Your task to perform on an android device: allow cookies in the chrome app Image 0: 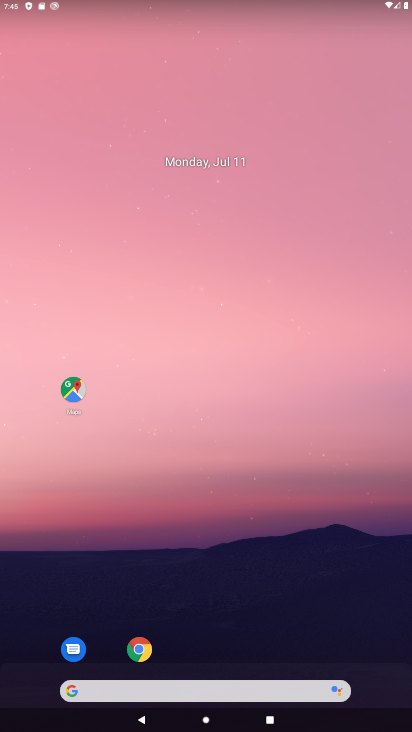
Step 0: click (139, 648)
Your task to perform on an android device: allow cookies in the chrome app Image 1: 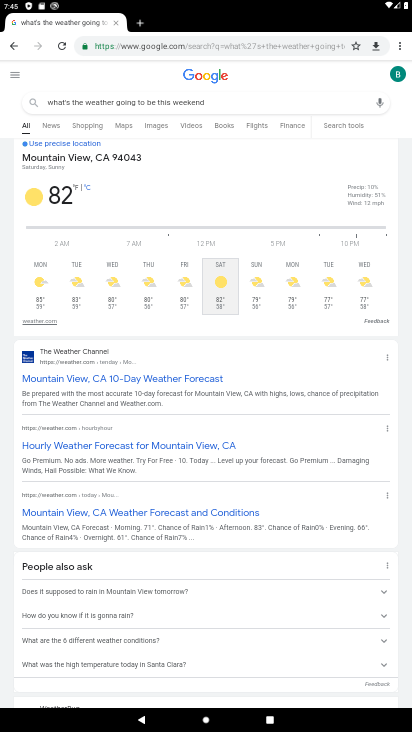
Step 1: click (400, 48)
Your task to perform on an android device: allow cookies in the chrome app Image 2: 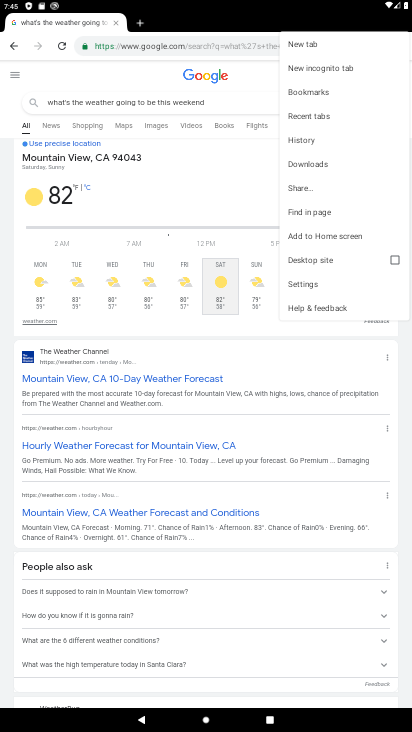
Step 2: click (307, 284)
Your task to perform on an android device: allow cookies in the chrome app Image 3: 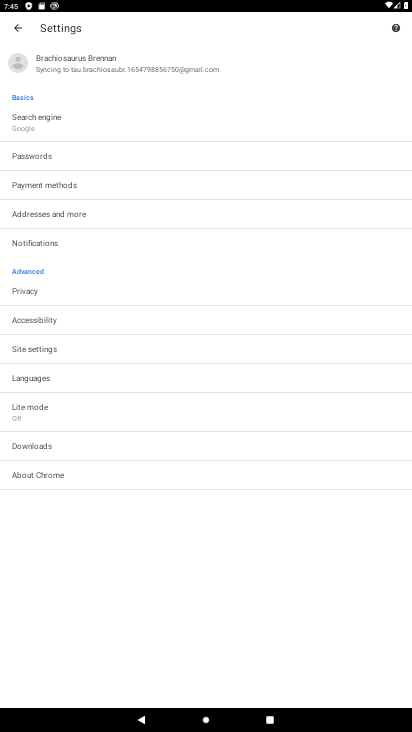
Step 3: click (42, 350)
Your task to perform on an android device: allow cookies in the chrome app Image 4: 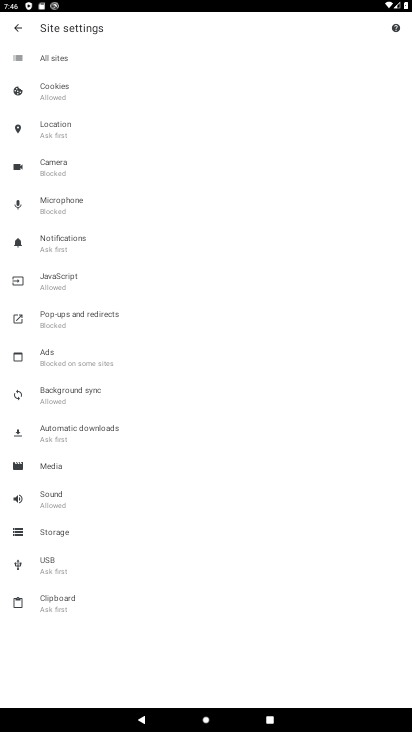
Step 4: click (57, 94)
Your task to perform on an android device: allow cookies in the chrome app Image 5: 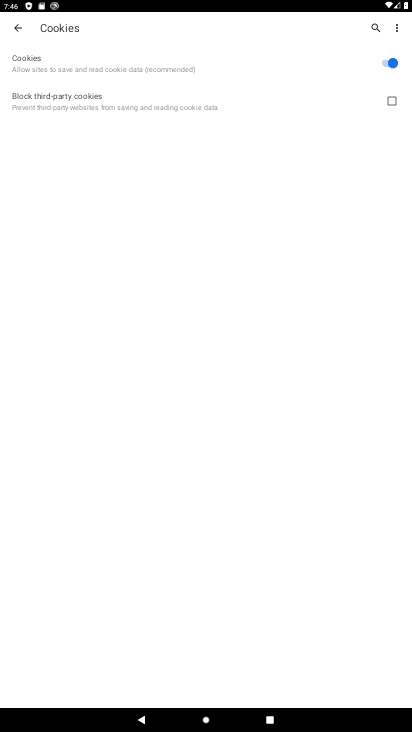
Step 5: click (391, 100)
Your task to perform on an android device: allow cookies in the chrome app Image 6: 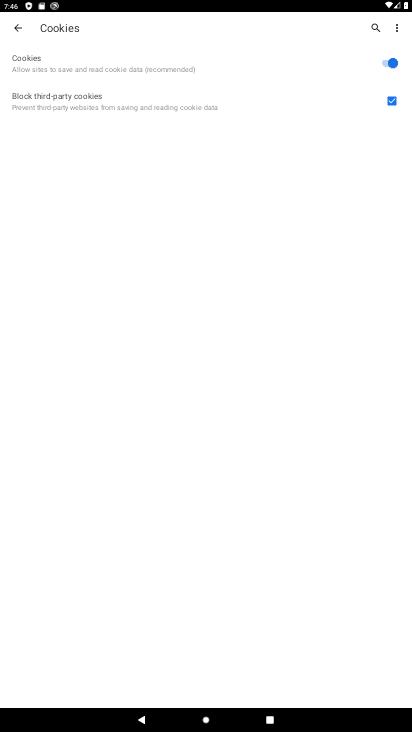
Step 6: task complete